Your task to perform on an android device: open a new tab in the chrome app Image 0: 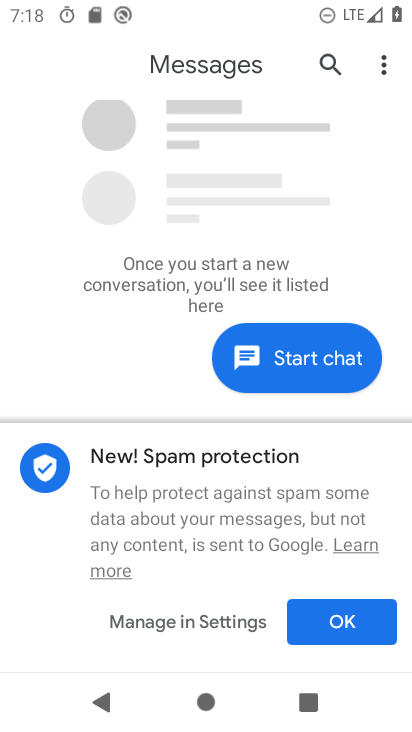
Step 0: press home button
Your task to perform on an android device: open a new tab in the chrome app Image 1: 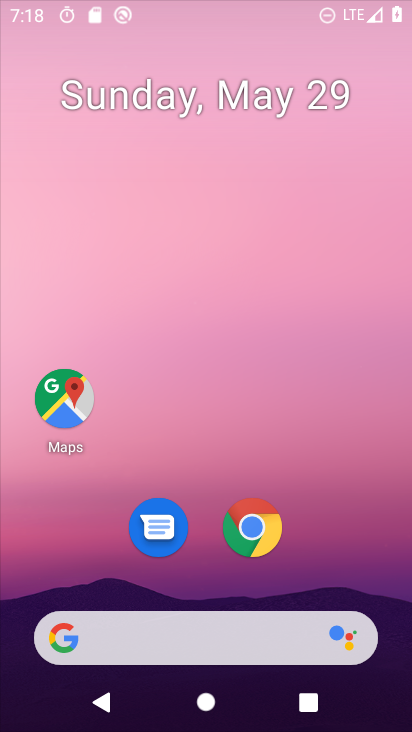
Step 1: drag from (394, 591) to (303, 133)
Your task to perform on an android device: open a new tab in the chrome app Image 2: 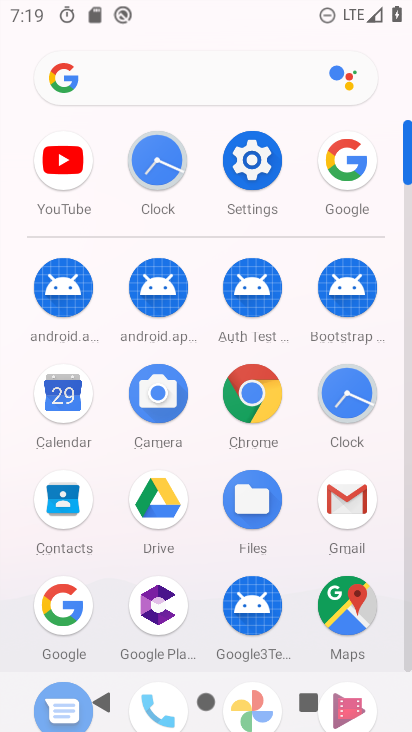
Step 2: click (224, 412)
Your task to perform on an android device: open a new tab in the chrome app Image 3: 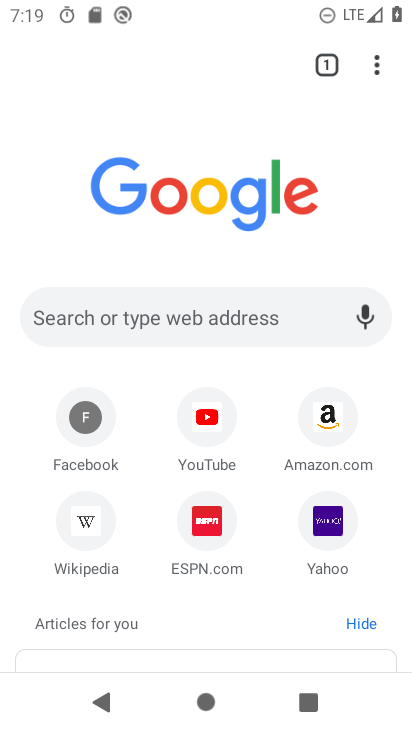
Step 3: click (370, 59)
Your task to perform on an android device: open a new tab in the chrome app Image 4: 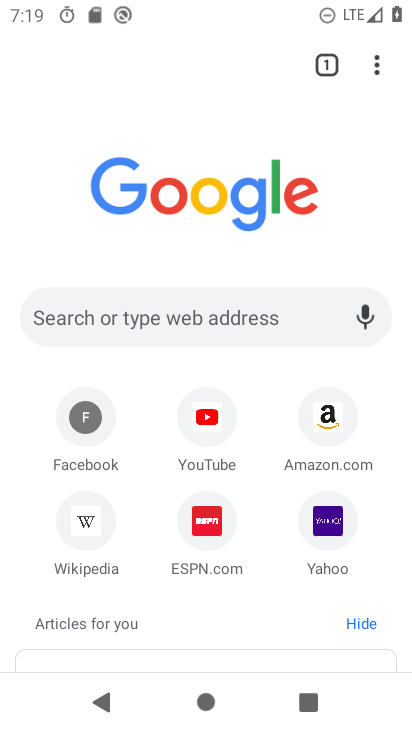
Step 4: click (379, 60)
Your task to perform on an android device: open a new tab in the chrome app Image 5: 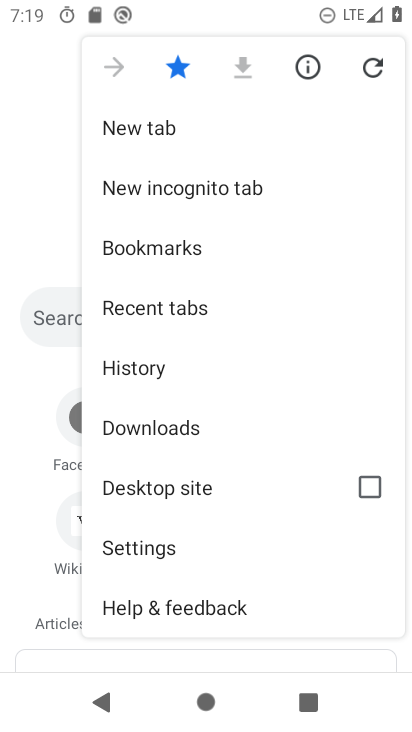
Step 5: click (193, 130)
Your task to perform on an android device: open a new tab in the chrome app Image 6: 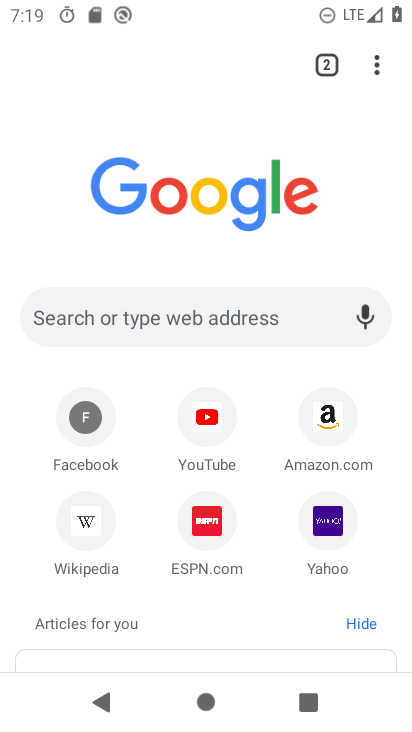
Step 6: task complete